Your task to perform on an android device: add a contact Image 0: 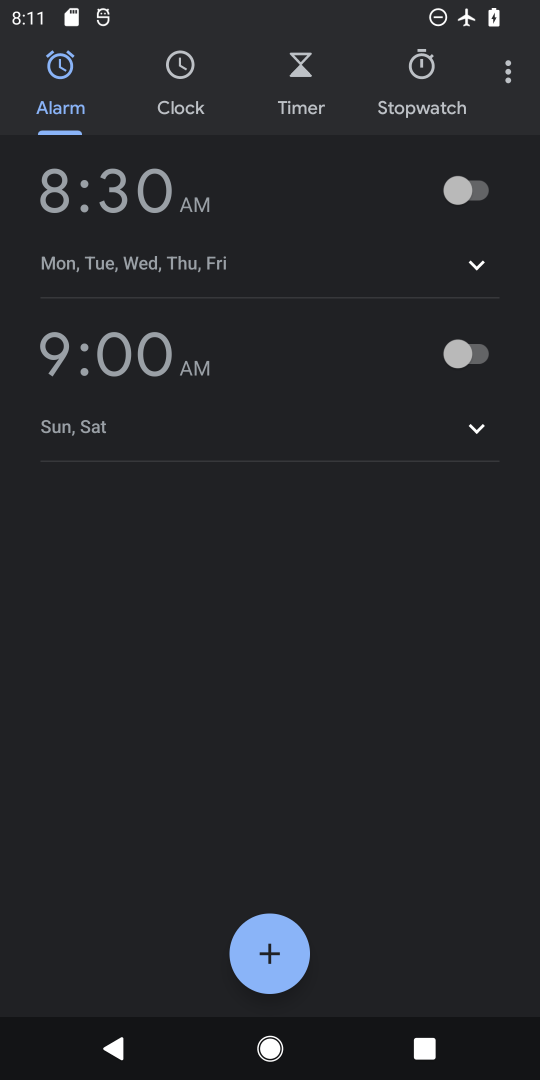
Step 0: press home button
Your task to perform on an android device: add a contact Image 1: 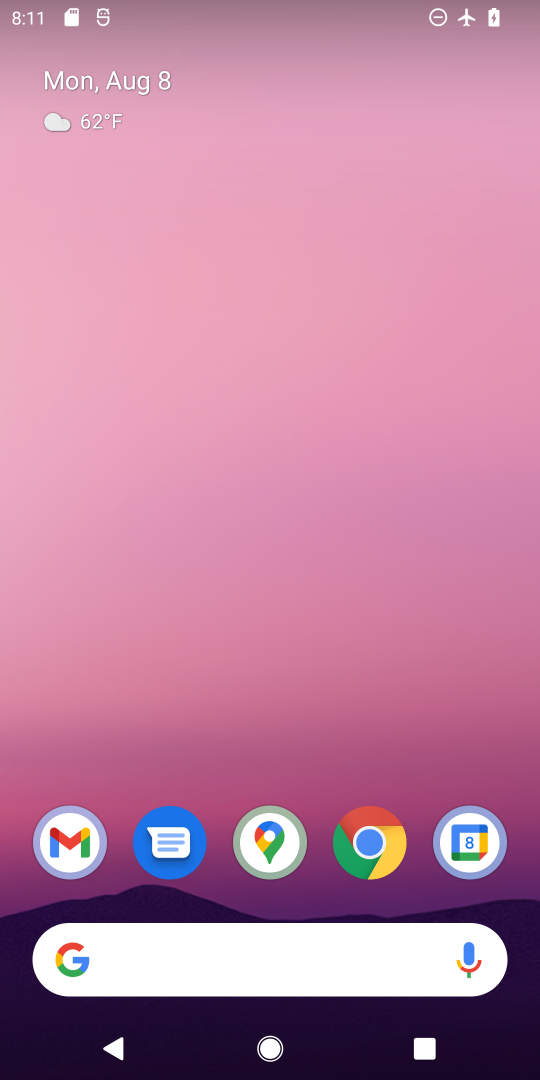
Step 1: drag from (318, 900) to (240, 284)
Your task to perform on an android device: add a contact Image 2: 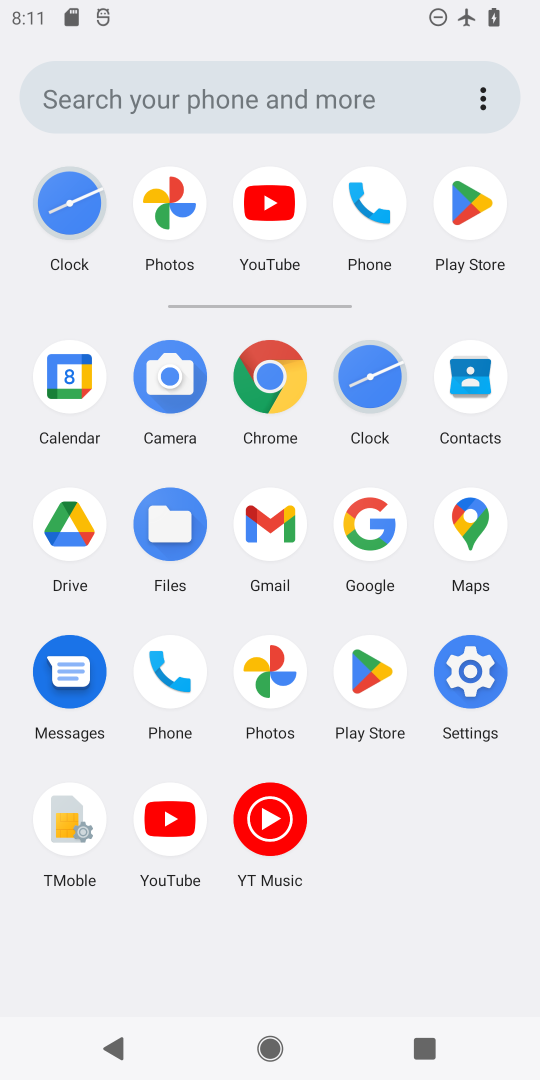
Step 2: click (171, 692)
Your task to perform on an android device: add a contact Image 3: 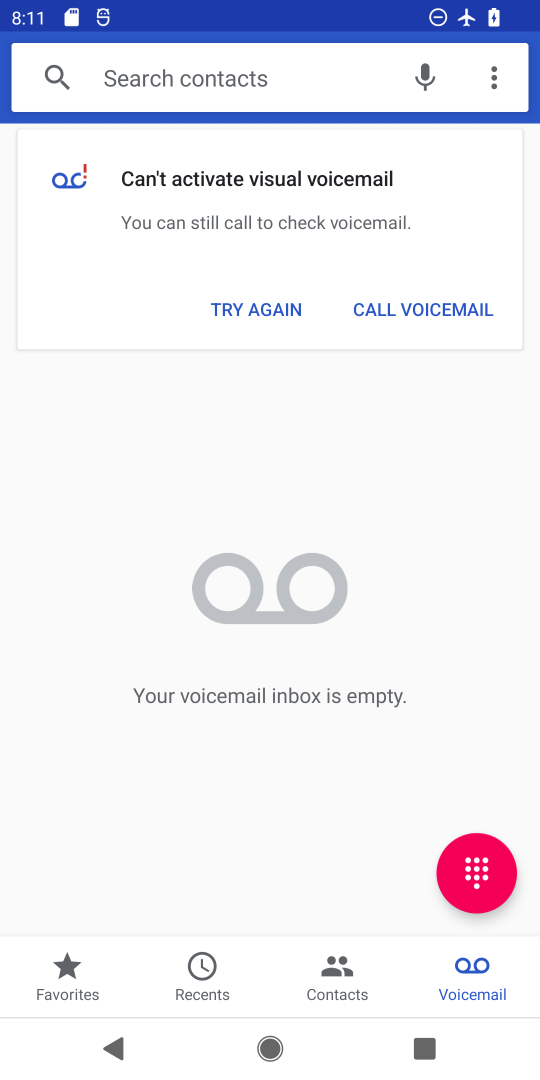
Step 3: click (340, 960)
Your task to perform on an android device: add a contact Image 4: 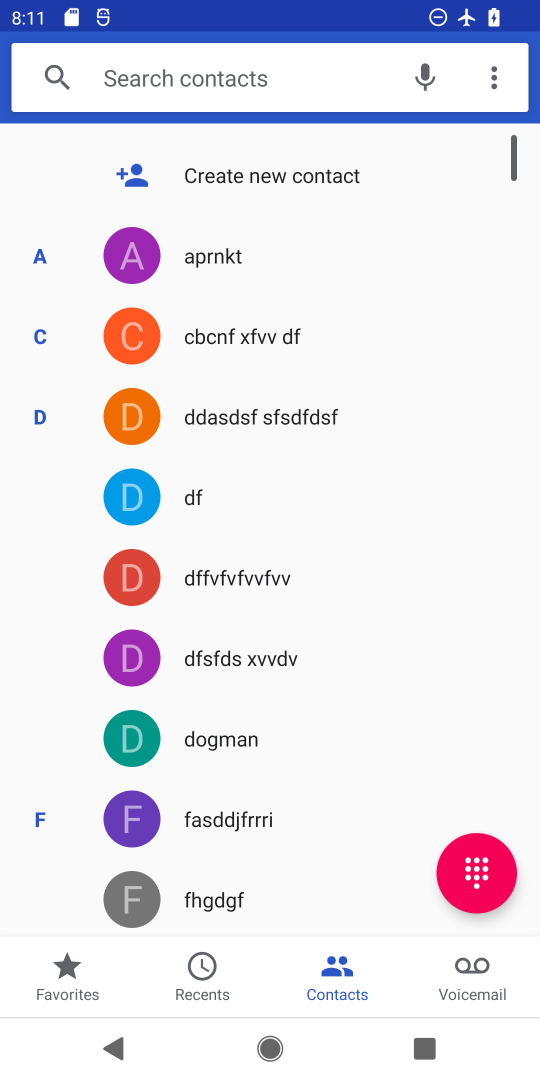
Step 4: click (174, 167)
Your task to perform on an android device: add a contact Image 5: 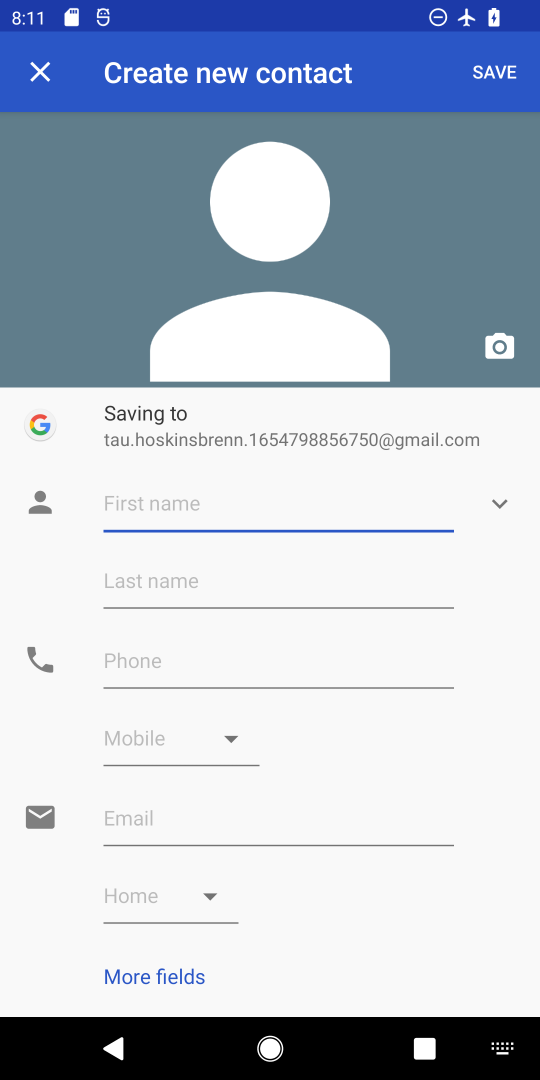
Step 5: type "stats"
Your task to perform on an android device: add a contact Image 6: 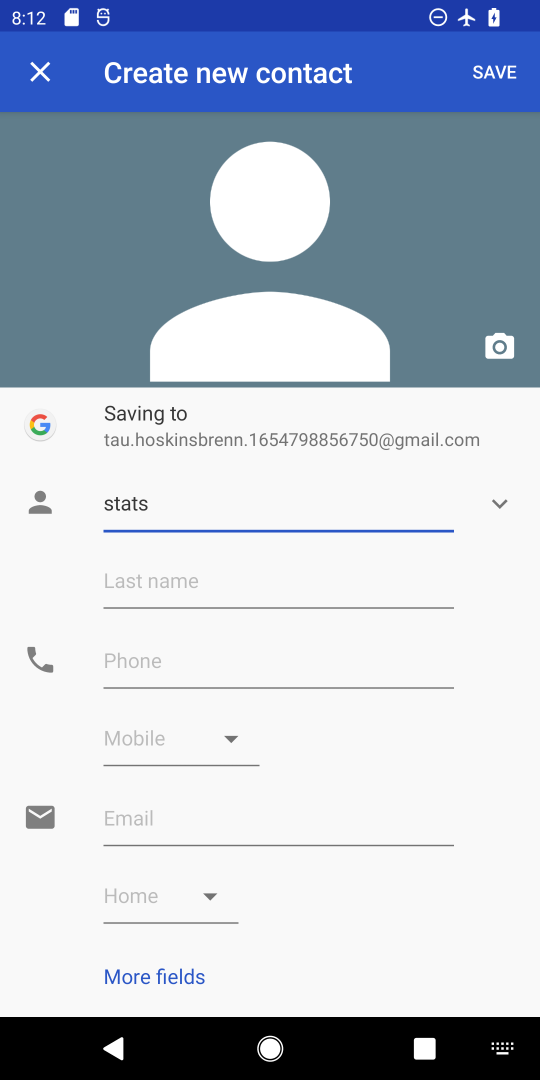
Step 6: click (482, 86)
Your task to perform on an android device: add a contact Image 7: 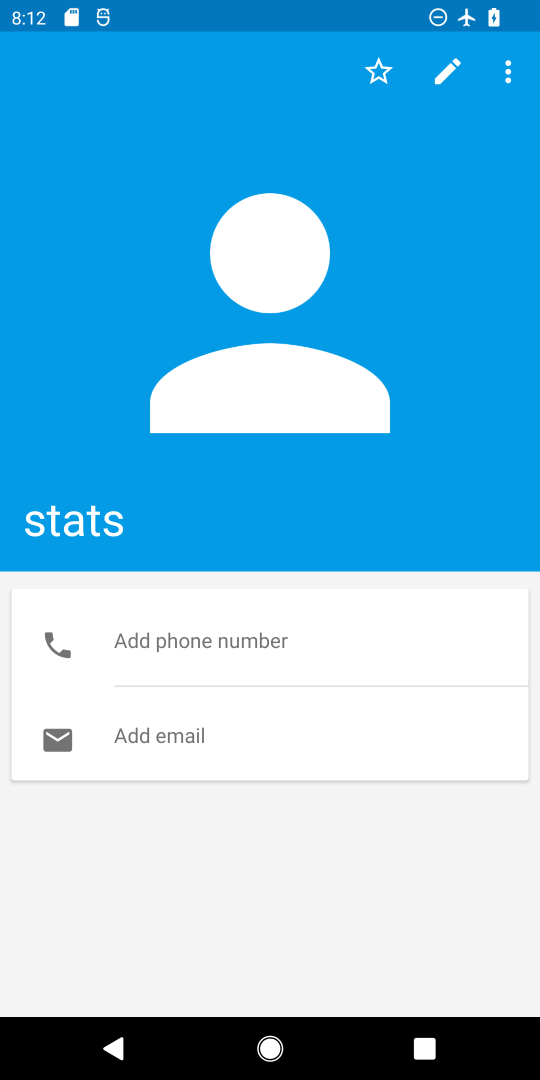
Step 7: task complete